Your task to perform on an android device: Open Google Maps Image 0: 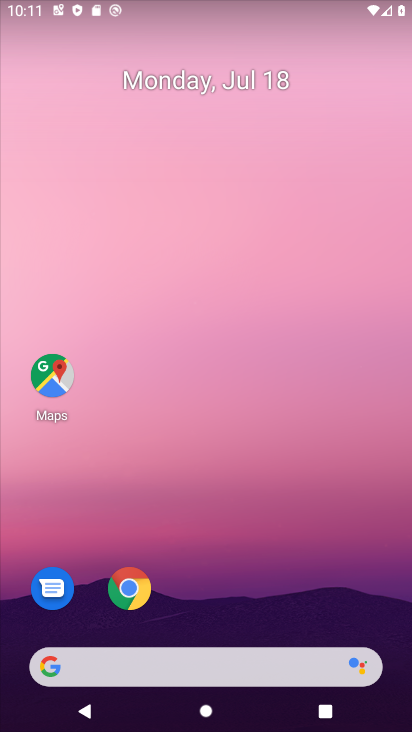
Step 0: drag from (235, 707) to (197, 155)
Your task to perform on an android device: Open Google Maps Image 1: 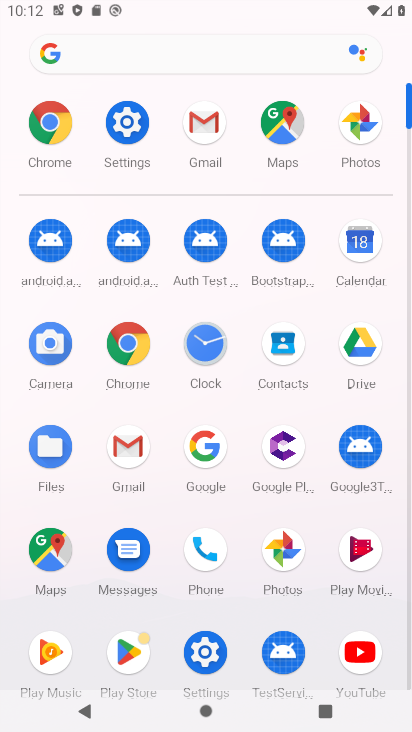
Step 1: click (55, 549)
Your task to perform on an android device: Open Google Maps Image 2: 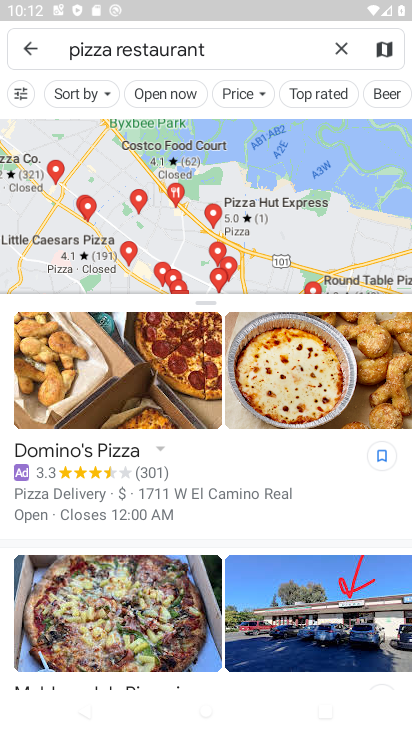
Step 2: task complete